Your task to perform on an android device: toggle data saver in the chrome app Image 0: 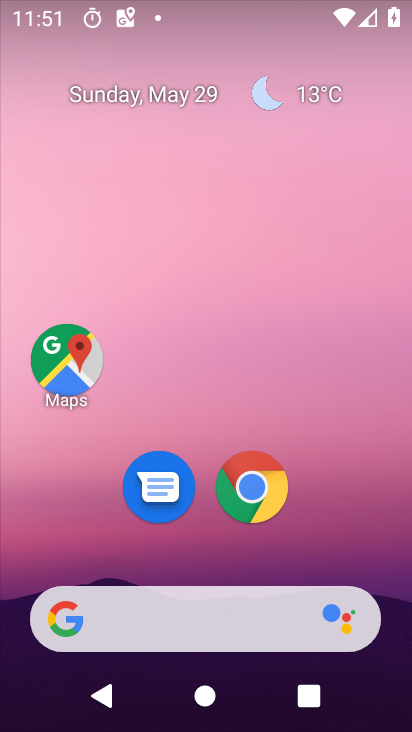
Step 0: click (263, 482)
Your task to perform on an android device: toggle data saver in the chrome app Image 1: 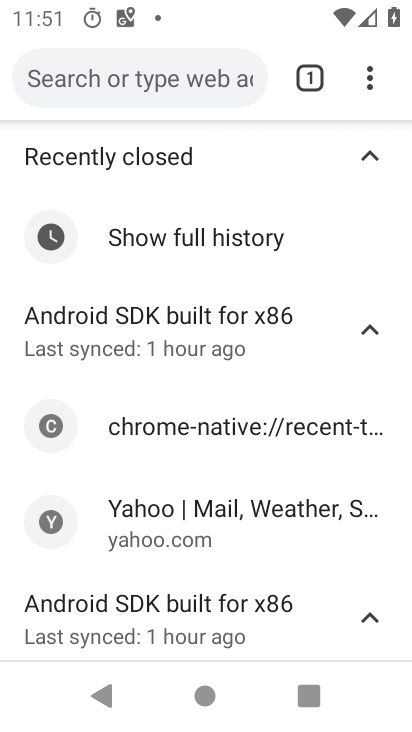
Step 1: click (365, 64)
Your task to perform on an android device: toggle data saver in the chrome app Image 2: 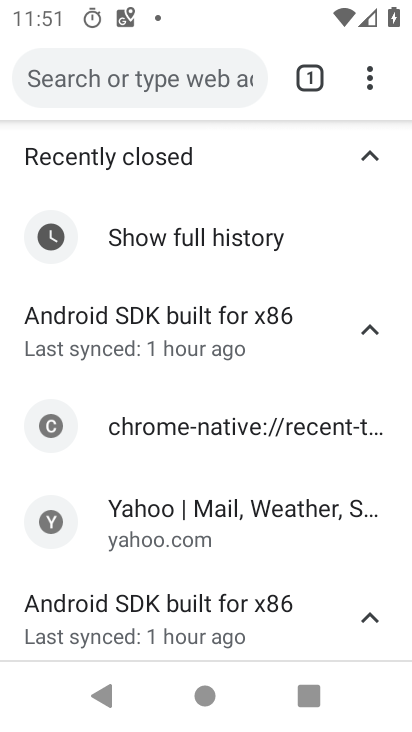
Step 2: click (364, 71)
Your task to perform on an android device: toggle data saver in the chrome app Image 3: 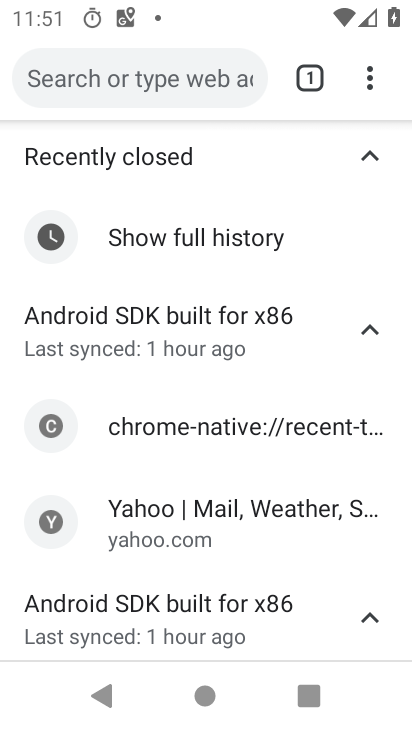
Step 3: click (369, 74)
Your task to perform on an android device: toggle data saver in the chrome app Image 4: 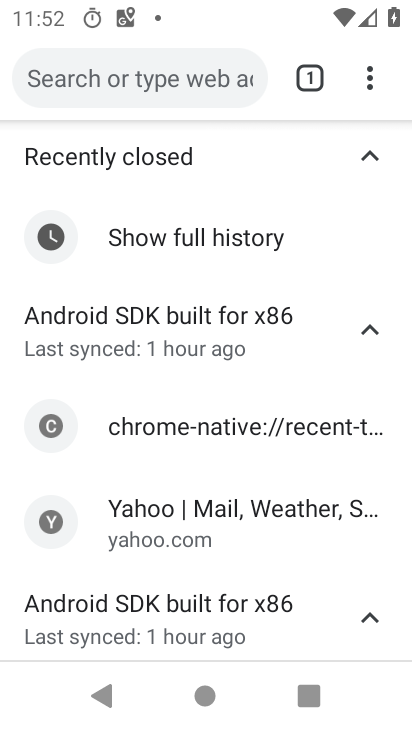
Step 4: click (369, 74)
Your task to perform on an android device: toggle data saver in the chrome app Image 5: 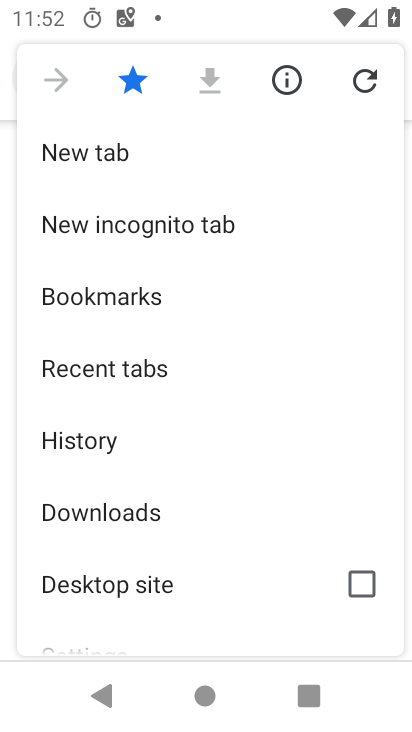
Step 5: drag from (250, 607) to (282, 309)
Your task to perform on an android device: toggle data saver in the chrome app Image 6: 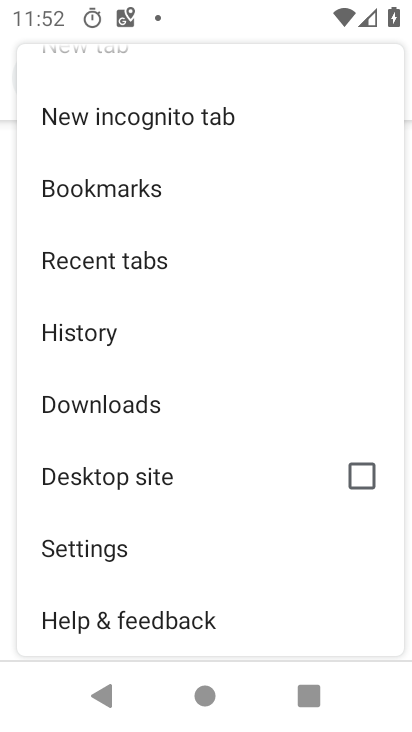
Step 6: click (108, 551)
Your task to perform on an android device: toggle data saver in the chrome app Image 7: 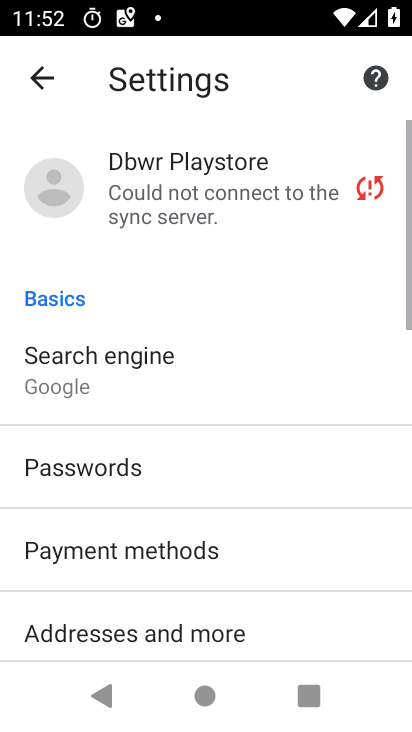
Step 7: drag from (276, 627) to (290, 280)
Your task to perform on an android device: toggle data saver in the chrome app Image 8: 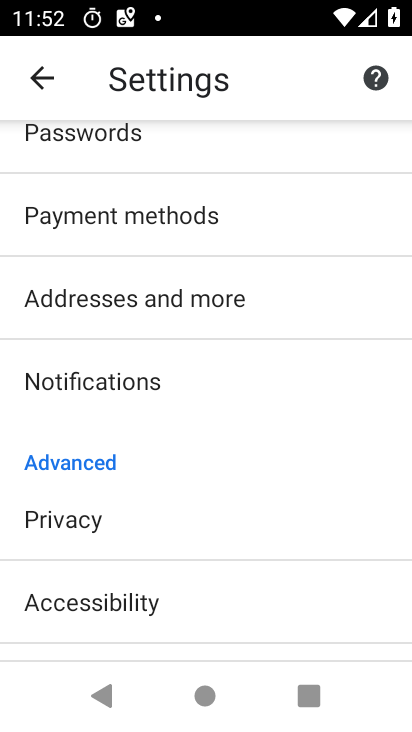
Step 8: drag from (238, 614) to (259, 340)
Your task to perform on an android device: toggle data saver in the chrome app Image 9: 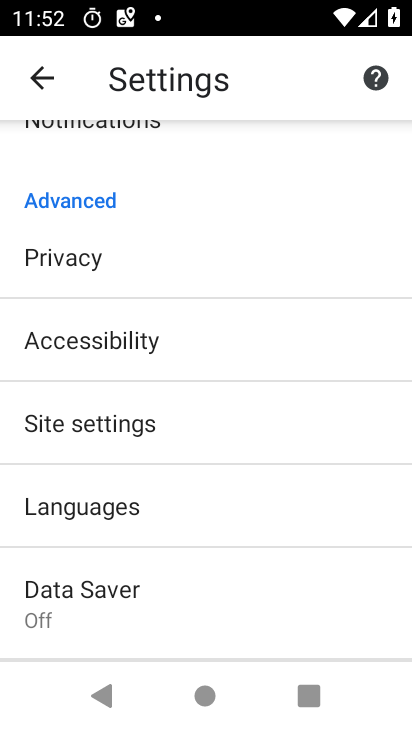
Step 9: drag from (226, 583) to (273, 248)
Your task to perform on an android device: toggle data saver in the chrome app Image 10: 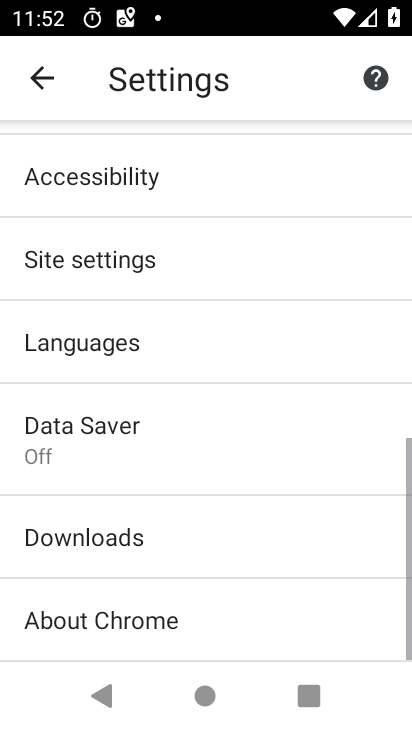
Step 10: click (73, 437)
Your task to perform on an android device: toggle data saver in the chrome app Image 11: 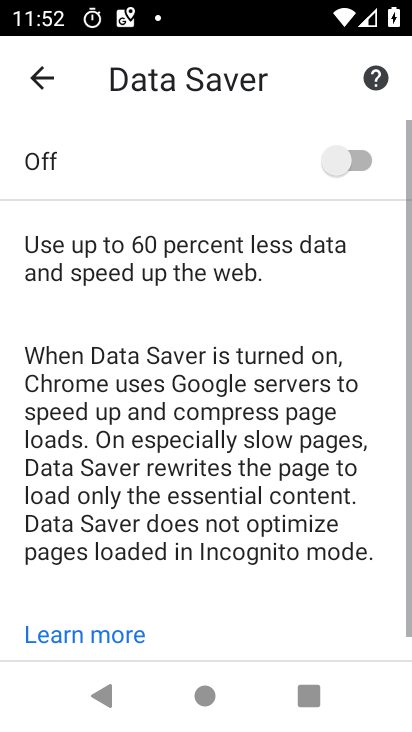
Step 11: click (348, 153)
Your task to perform on an android device: toggle data saver in the chrome app Image 12: 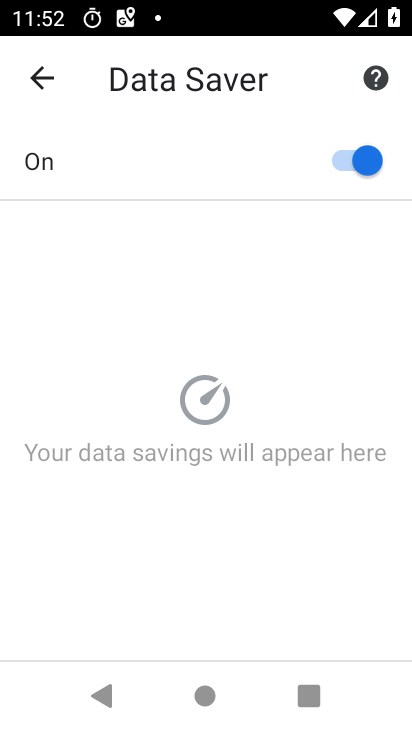
Step 12: task complete